Your task to perform on an android device: Open Yahoo.com Image 0: 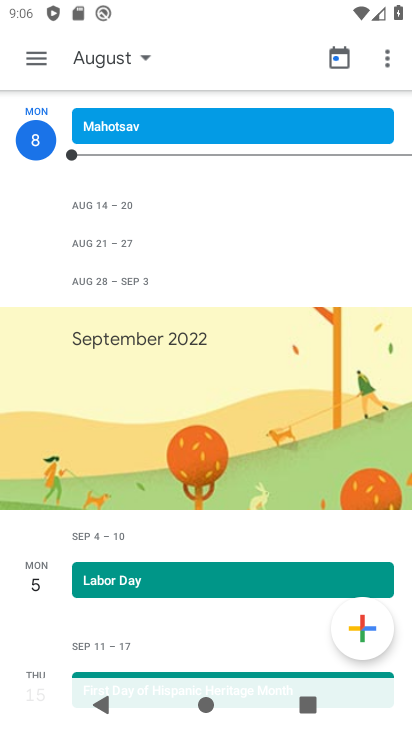
Step 0: press home button
Your task to perform on an android device: Open Yahoo.com Image 1: 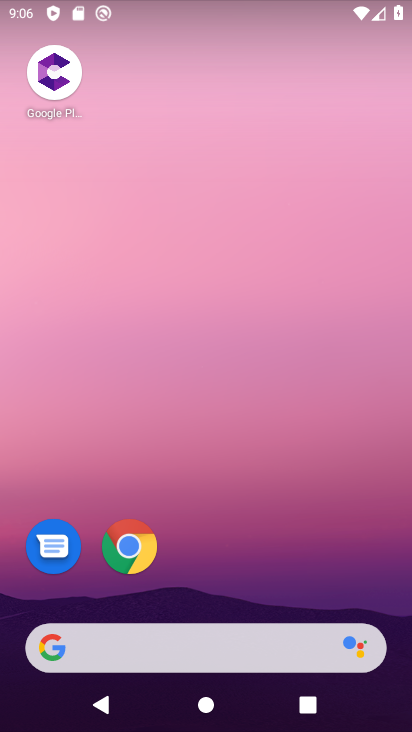
Step 1: click (157, 647)
Your task to perform on an android device: Open Yahoo.com Image 2: 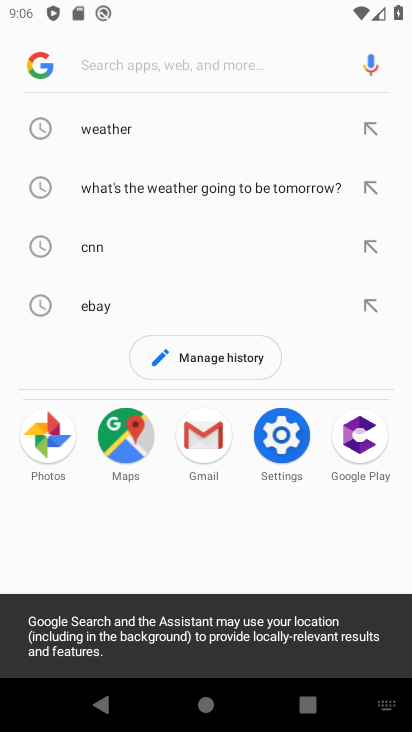
Step 2: type "Yahoo.com"
Your task to perform on an android device: Open Yahoo.com Image 3: 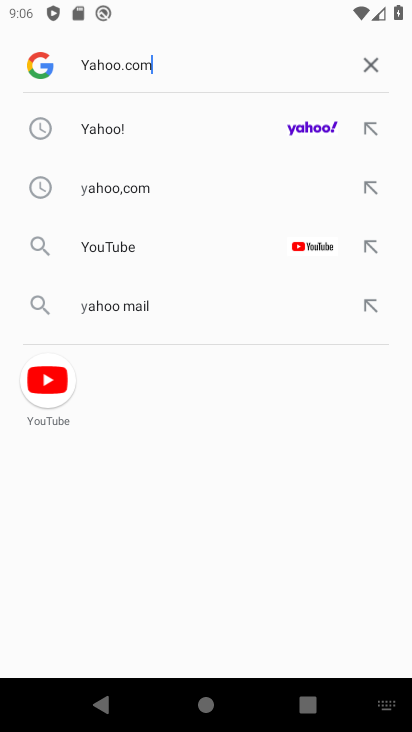
Step 3: press enter
Your task to perform on an android device: Open Yahoo.com Image 4: 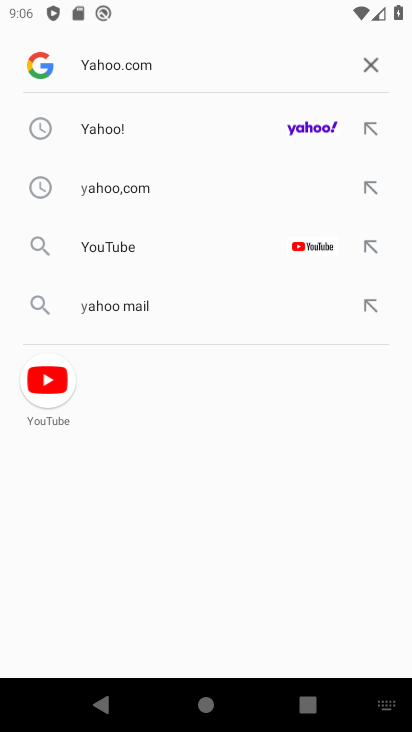
Step 4: click (115, 71)
Your task to perform on an android device: Open Yahoo.com Image 5: 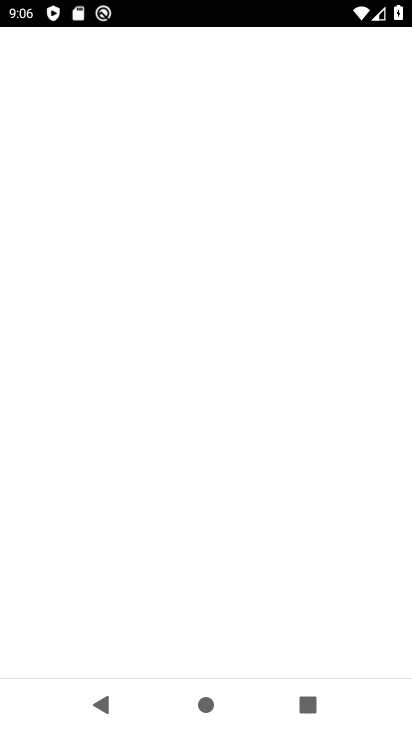
Step 5: press enter
Your task to perform on an android device: Open Yahoo.com Image 6: 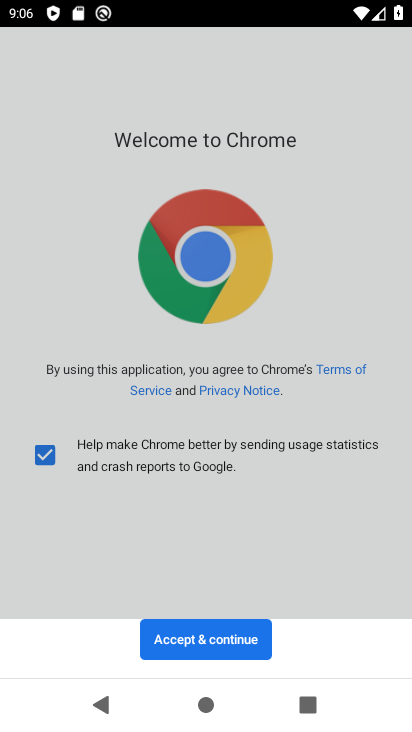
Step 6: click (224, 636)
Your task to perform on an android device: Open Yahoo.com Image 7: 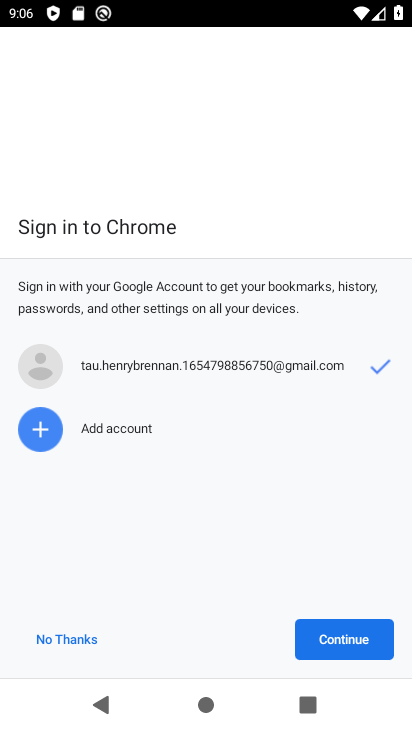
Step 7: click (338, 638)
Your task to perform on an android device: Open Yahoo.com Image 8: 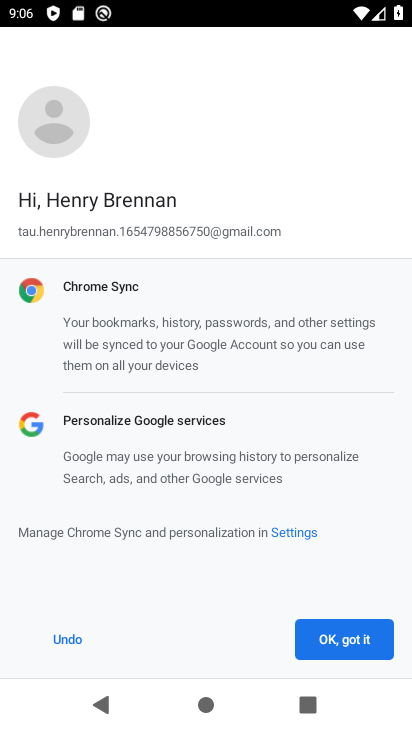
Step 8: click (338, 638)
Your task to perform on an android device: Open Yahoo.com Image 9: 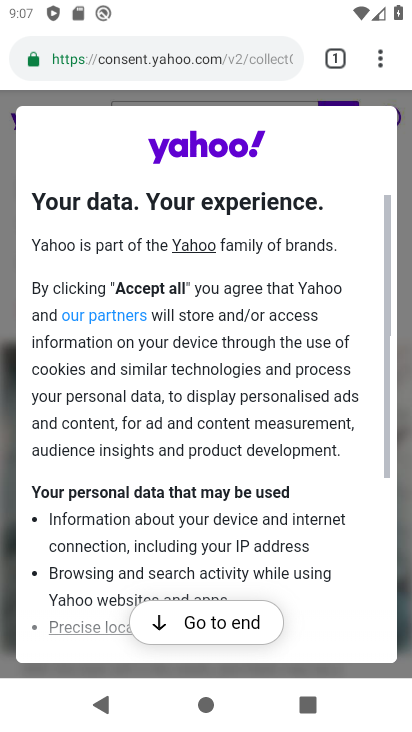
Step 9: task complete